Your task to perform on an android device: change the clock display to digital Image 0: 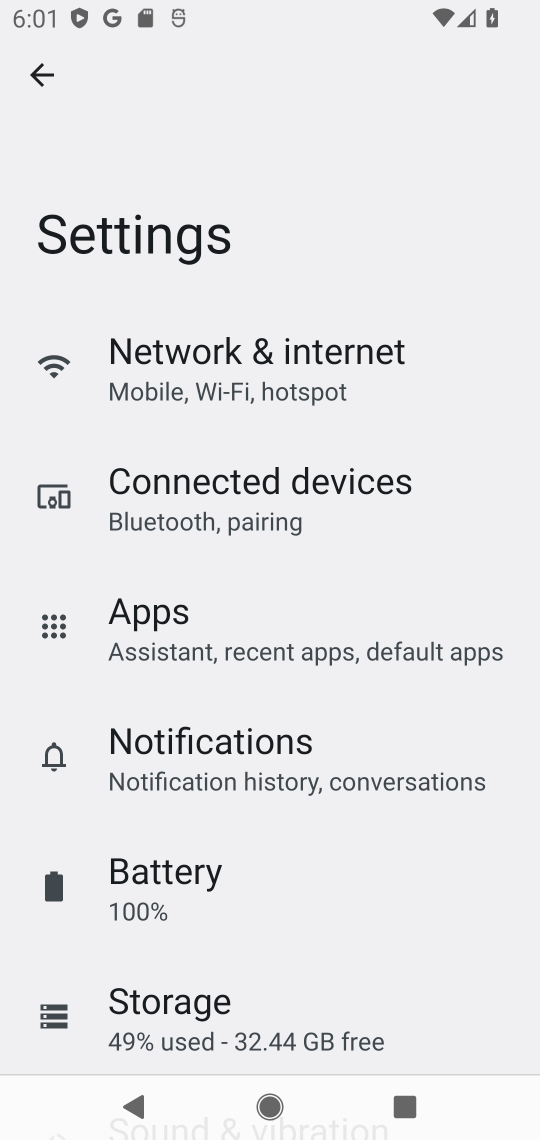
Step 0: press home button
Your task to perform on an android device: change the clock display to digital Image 1: 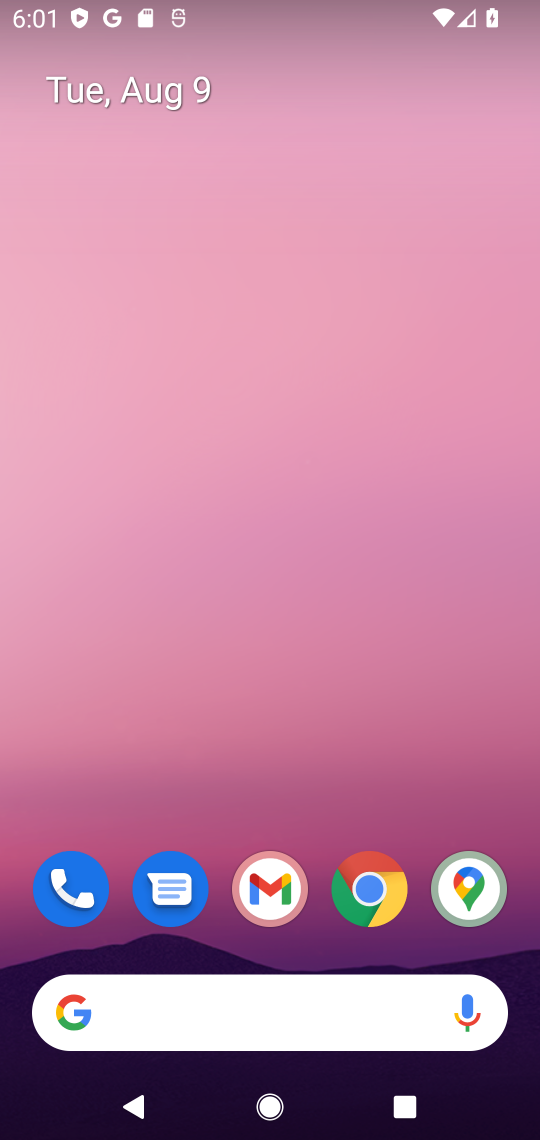
Step 1: drag from (259, 995) to (211, 243)
Your task to perform on an android device: change the clock display to digital Image 2: 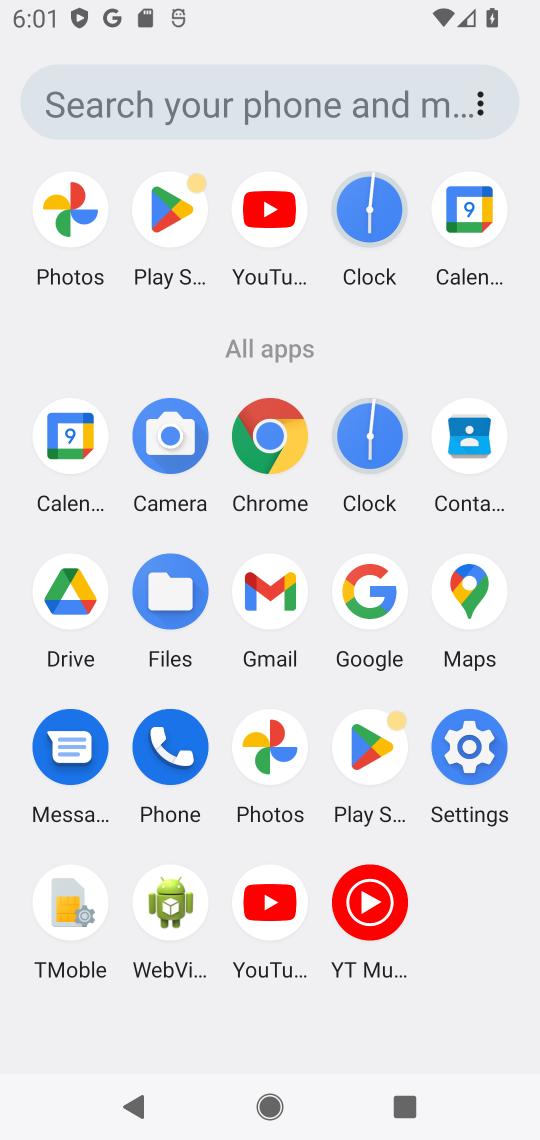
Step 2: click (384, 425)
Your task to perform on an android device: change the clock display to digital Image 3: 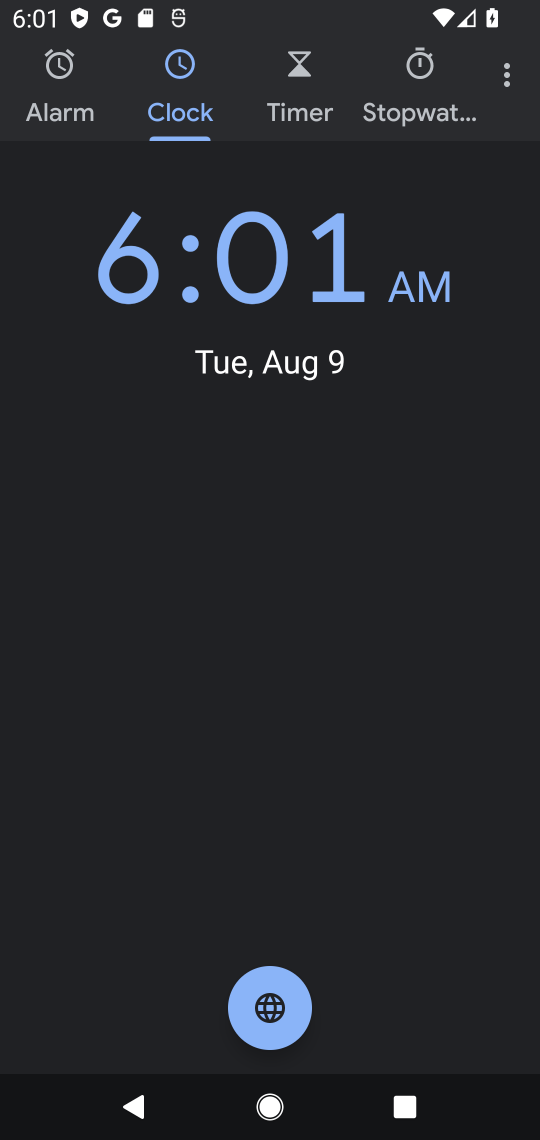
Step 3: click (504, 90)
Your task to perform on an android device: change the clock display to digital Image 4: 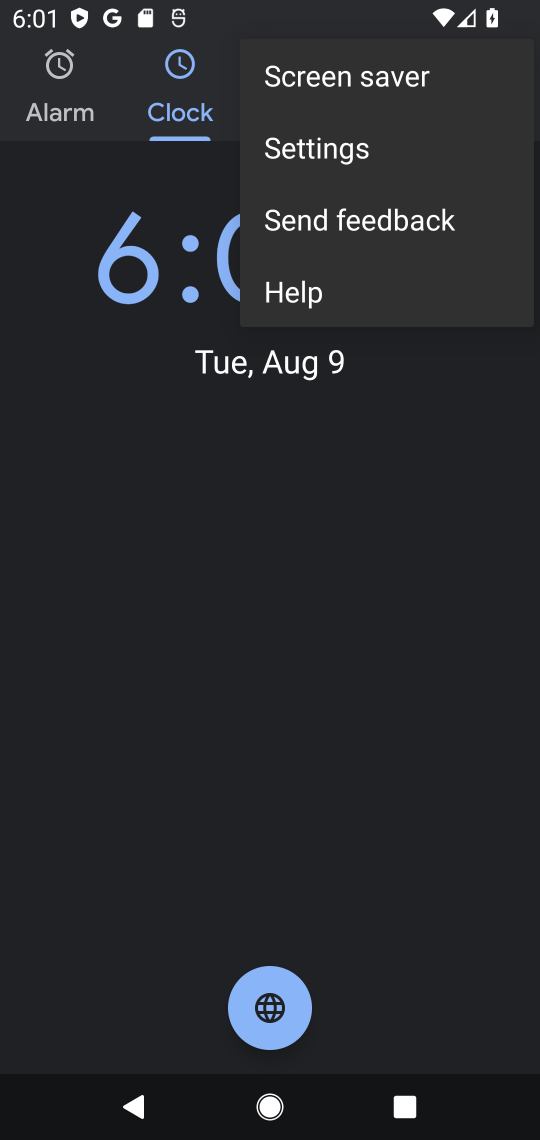
Step 4: click (361, 145)
Your task to perform on an android device: change the clock display to digital Image 5: 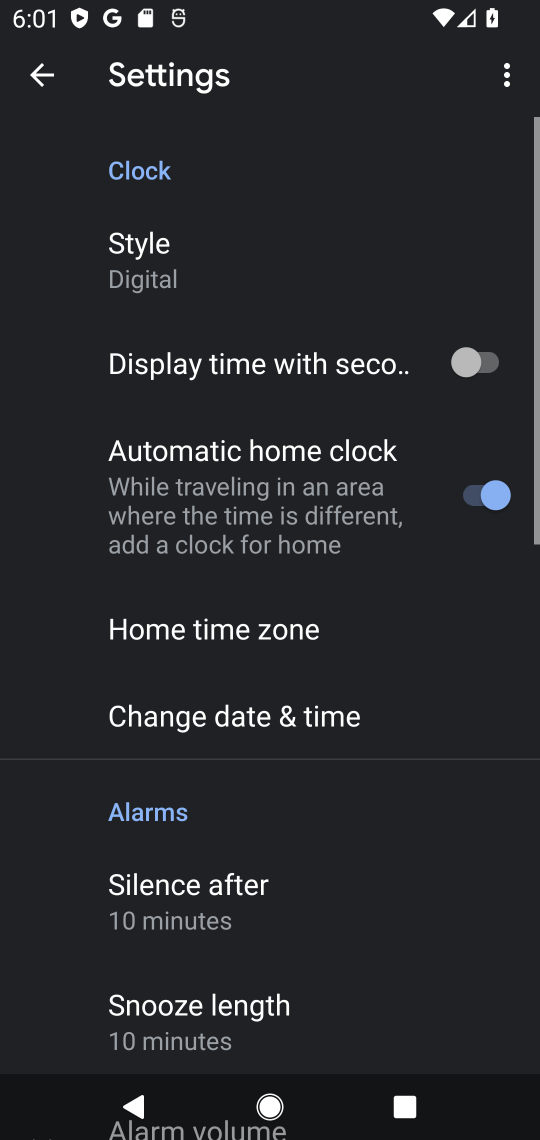
Step 5: click (224, 243)
Your task to perform on an android device: change the clock display to digital Image 6: 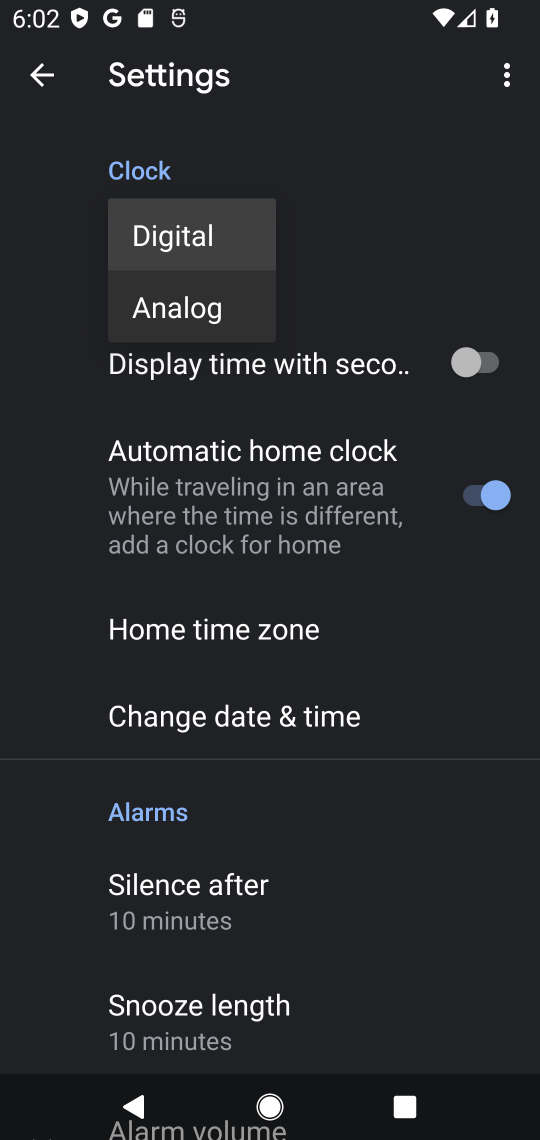
Step 6: click (190, 252)
Your task to perform on an android device: change the clock display to digital Image 7: 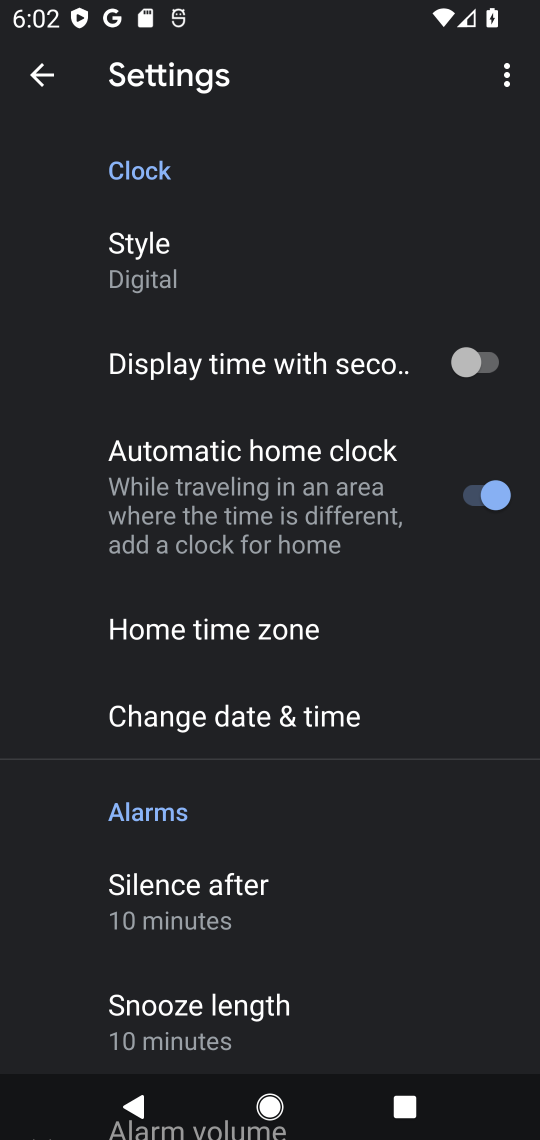
Step 7: task complete